Your task to perform on an android device: Go to battery settings Image 0: 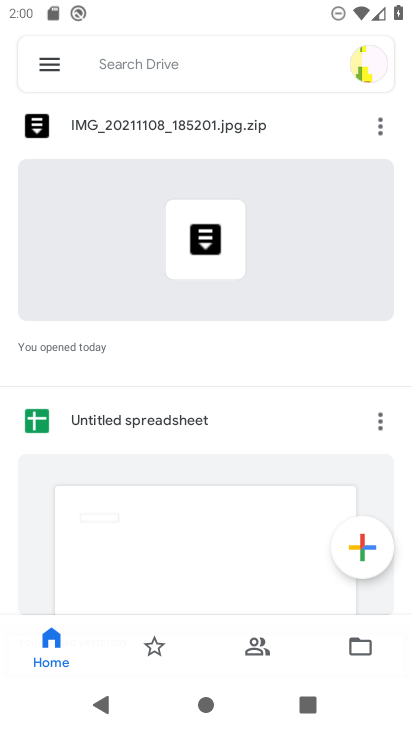
Step 0: press back button
Your task to perform on an android device: Go to battery settings Image 1: 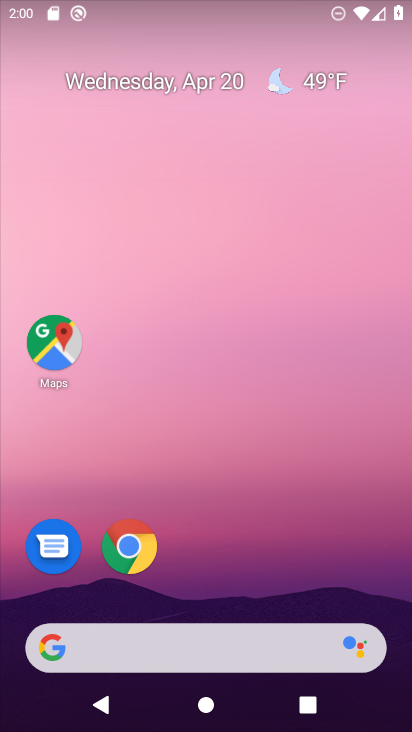
Step 1: drag from (201, 622) to (366, 52)
Your task to perform on an android device: Go to battery settings Image 2: 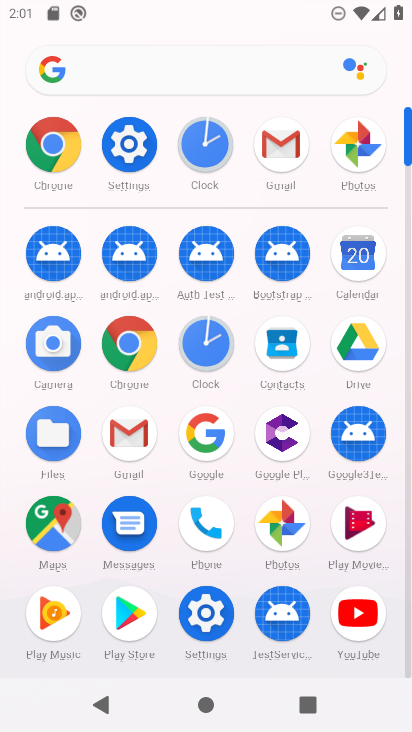
Step 2: click (141, 148)
Your task to perform on an android device: Go to battery settings Image 3: 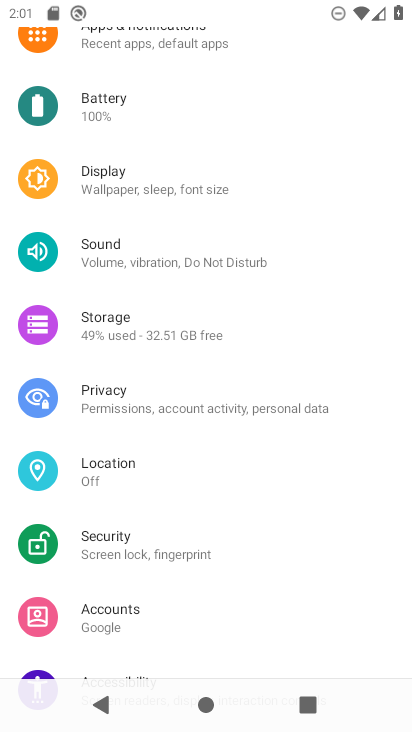
Step 3: click (127, 92)
Your task to perform on an android device: Go to battery settings Image 4: 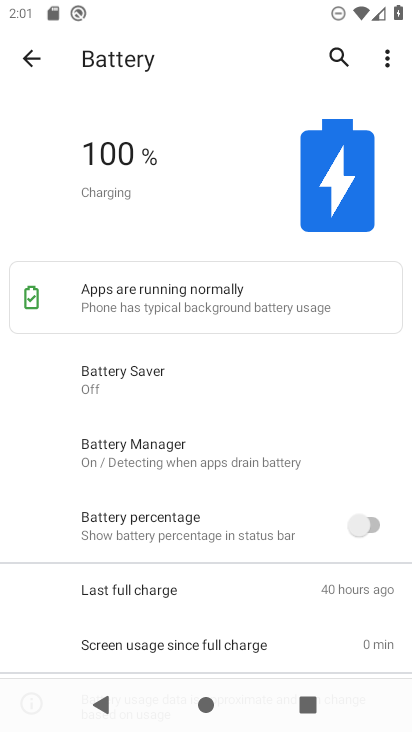
Step 4: task complete